Your task to perform on an android device: turn off wifi Image 0: 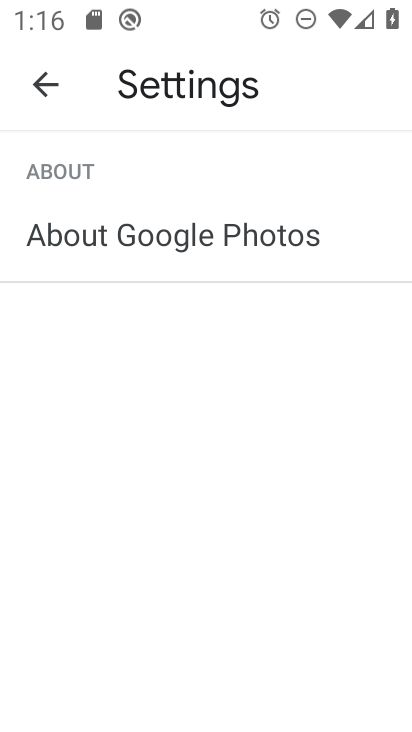
Step 0: press home button
Your task to perform on an android device: turn off wifi Image 1: 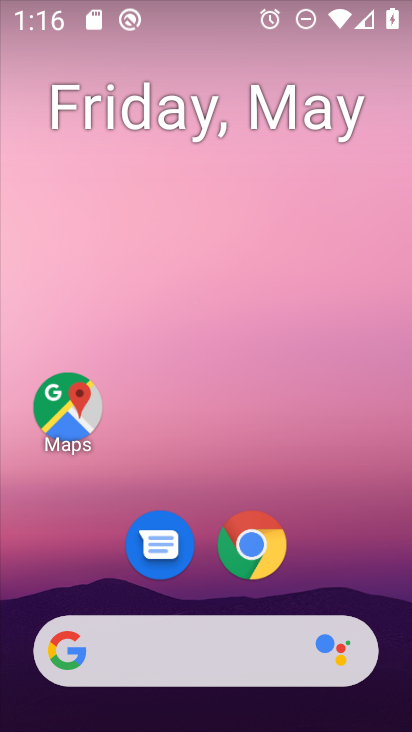
Step 1: drag from (284, 572) to (313, 229)
Your task to perform on an android device: turn off wifi Image 2: 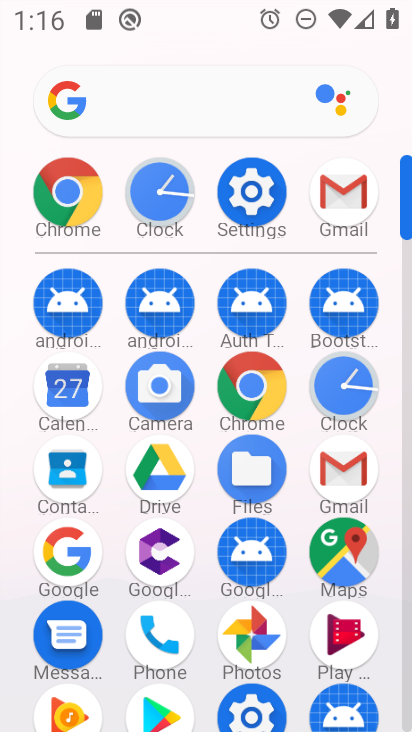
Step 2: click (236, 188)
Your task to perform on an android device: turn off wifi Image 3: 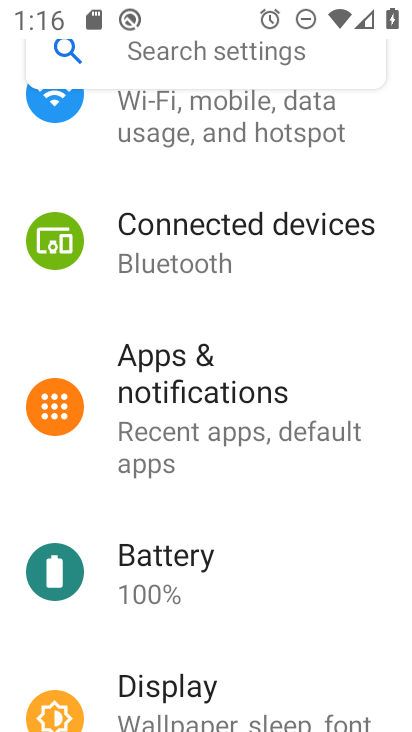
Step 3: click (213, 114)
Your task to perform on an android device: turn off wifi Image 4: 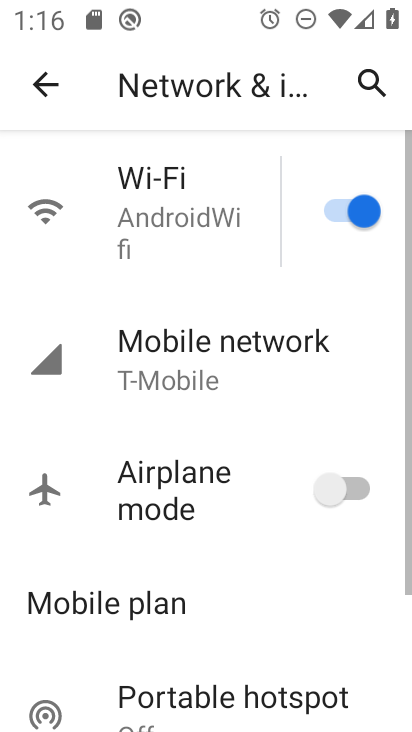
Step 4: click (333, 199)
Your task to perform on an android device: turn off wifi Image 5: 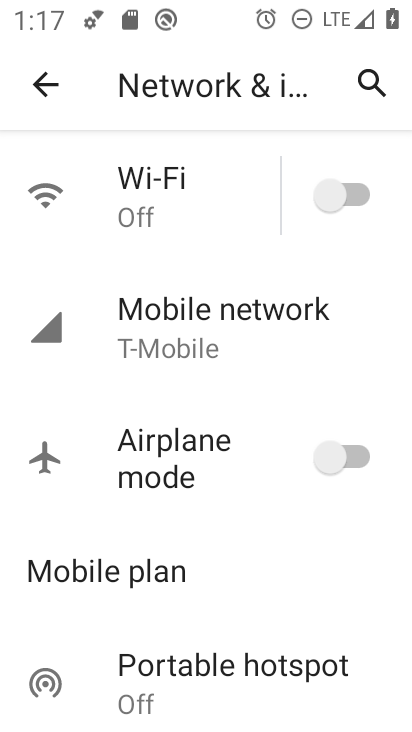
Step 5: task complete